Your task to perform on an android device: turn off sleep mode Image 0: 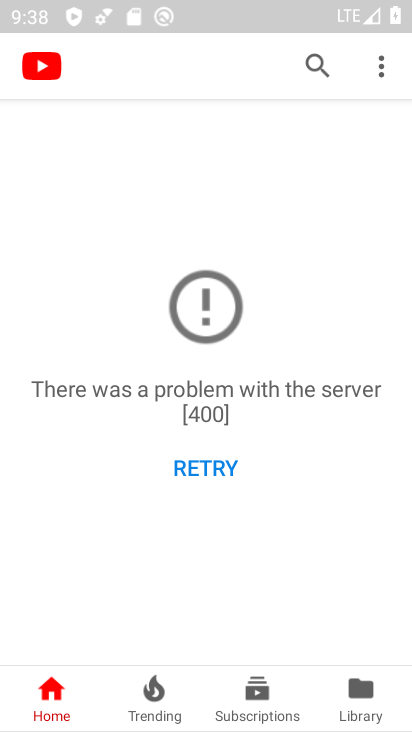
Step 0: press home button
Your task to perform on an android device: turn off sleep mode Image 1: 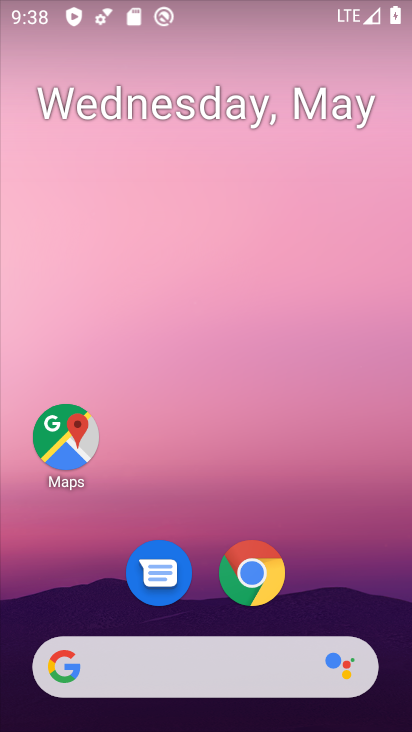
Step 1: drag from (341, 540) to (327, 108)
Your task to perform on an android device: turn off sleep mode Image 2: 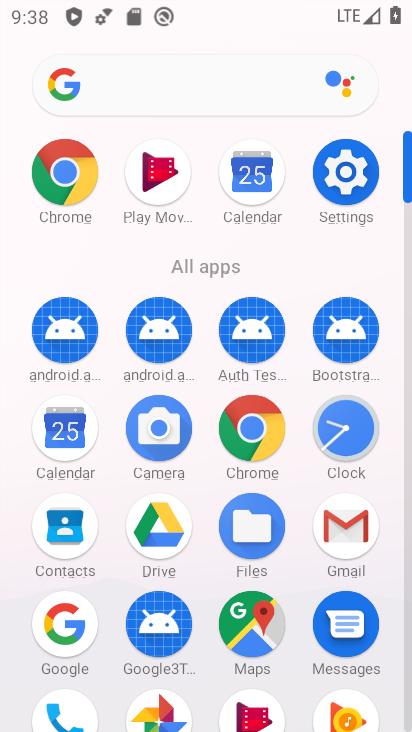
Step 2: click (330, 178)
Your task to perform on an android device: turn off sleep mode Image 3: 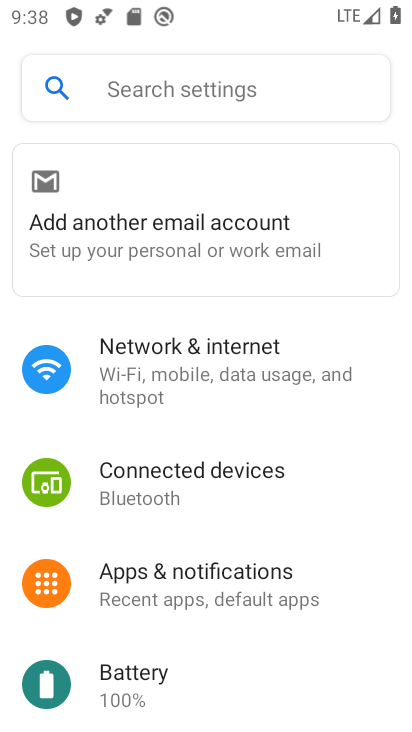
Step 3: drag from (326, 657) to (305, 276)
Your task to perform on an android device: turn off sleep mode Image 4: 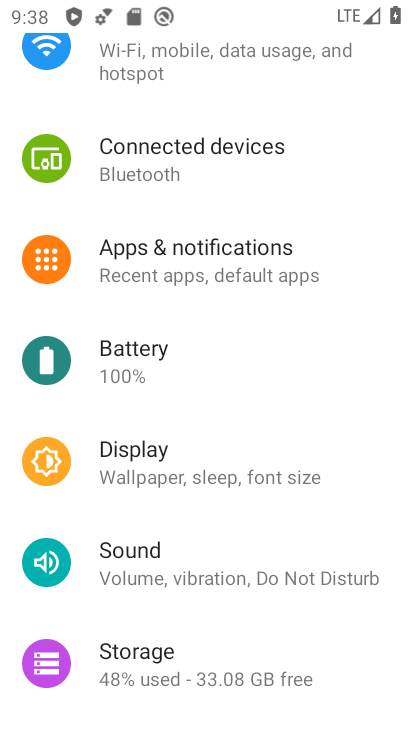
Step 4: click (197, 462)
Your task to perform on an android device: turn off sleep mode Image 5: 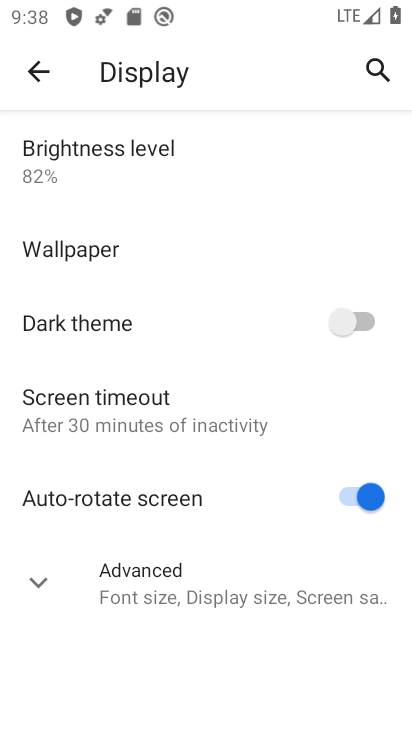
Step 5: click (31, 588)
Your task to perform on an android device: turn off sleep mode Image 6: 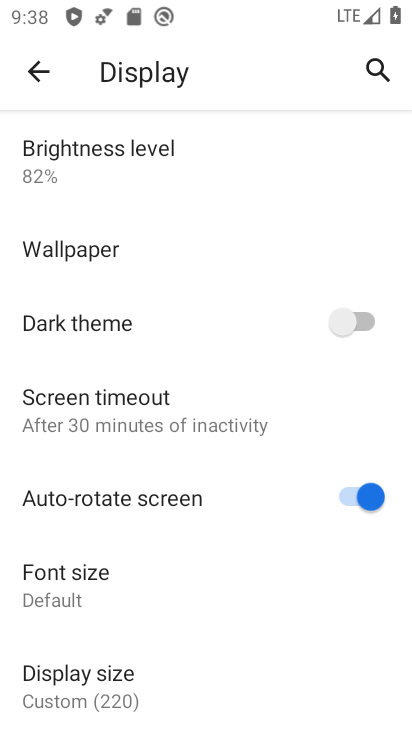
Step 6: task complete